Your task to perform on an android device: toggle location history Image 0: 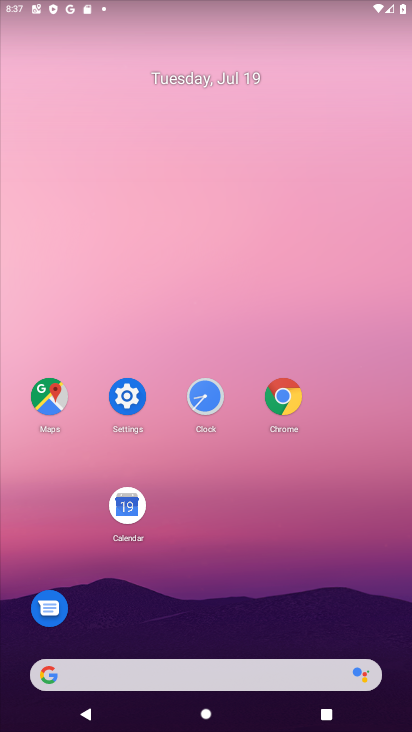
Step 0: click (132, 398)
Your task to perform on an android device: toggle location history Image 1: 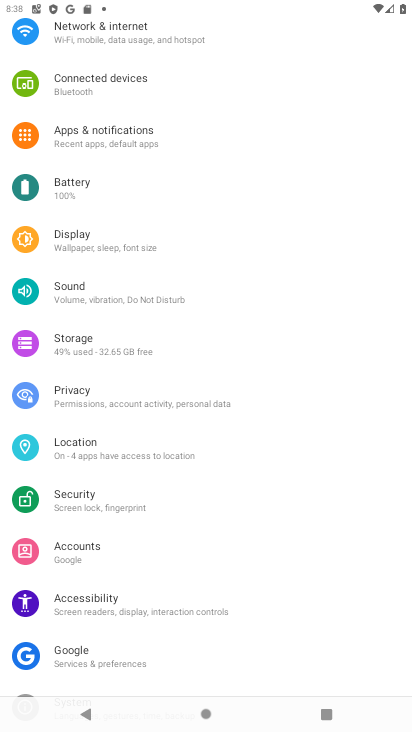
Step 1: click (85, 438)
Your task to perform on an android device: toggle location history Image 2: 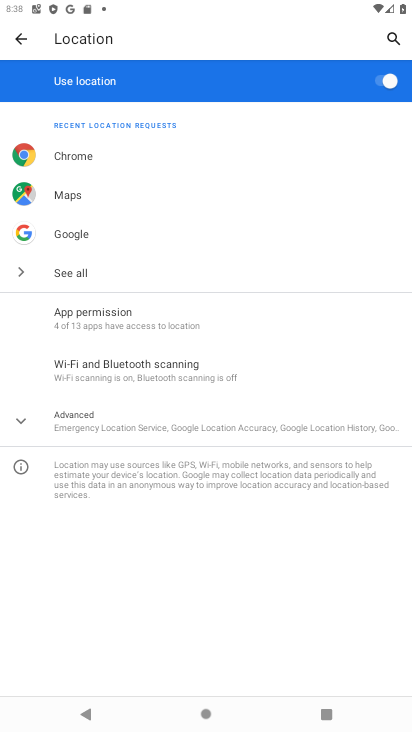
Step 2: click (19, 424)
Your task to perform on an android device: toggle location history Image 3: 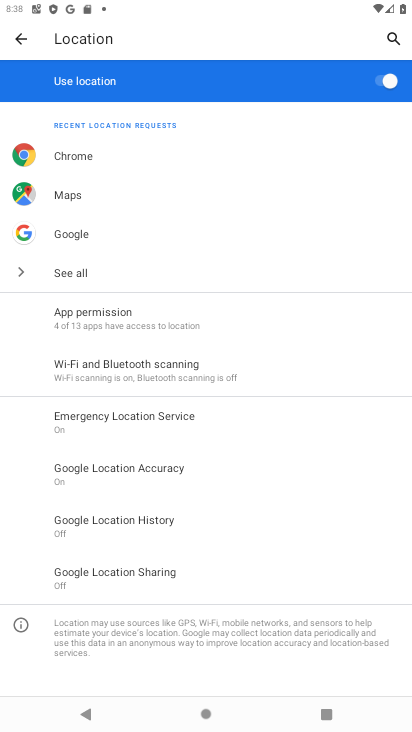
Step 3: click (121, 528)
Your task to perform on an android device: toggle location history Image 4: 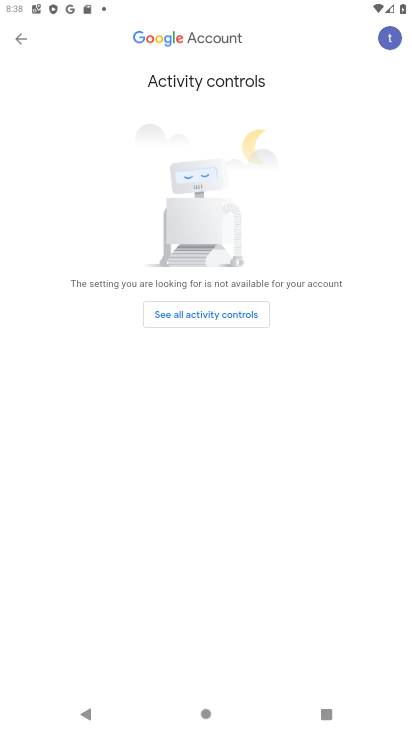
Step 4: click (213, 311)
Your task to perform on an android device: toggle location history Image 5: 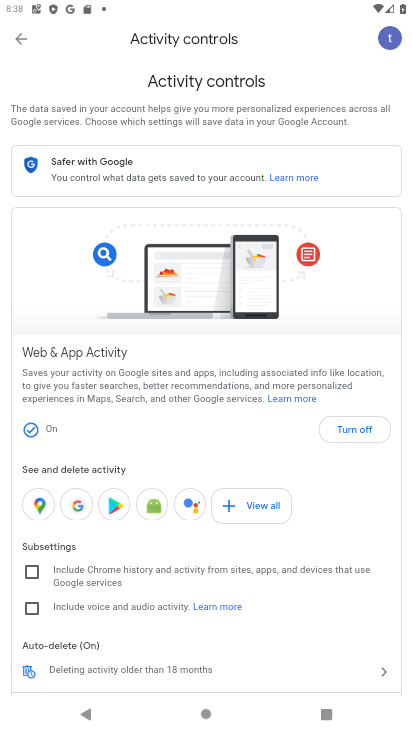
Step 5: drag from (235, 620) to (242, 268)
Your task to perform on an android device: toggle location history Image 6: 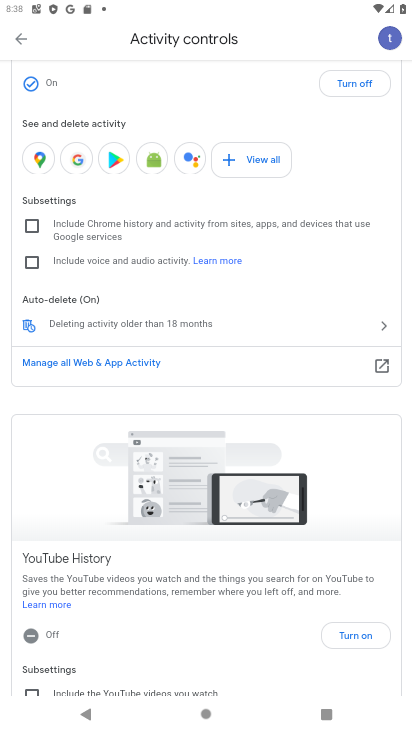
Step 6: click (357, 628)
Your task to perform on an android device: toggle location history Image 7: 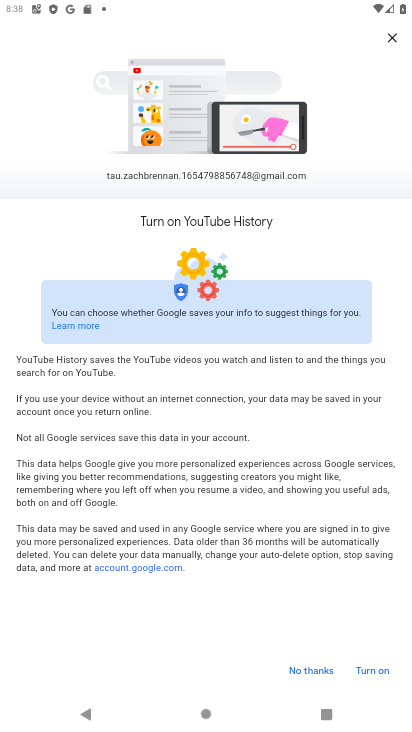
Step 7: click (355, 665)
Your task to perform on an android device: toggle location history Image 8: 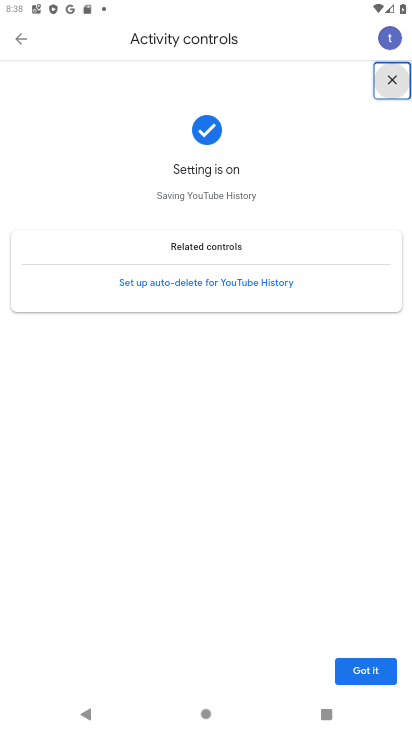
Step 8: click (362, 668)
Your task to perform on an android device: toggle location history Image 9: 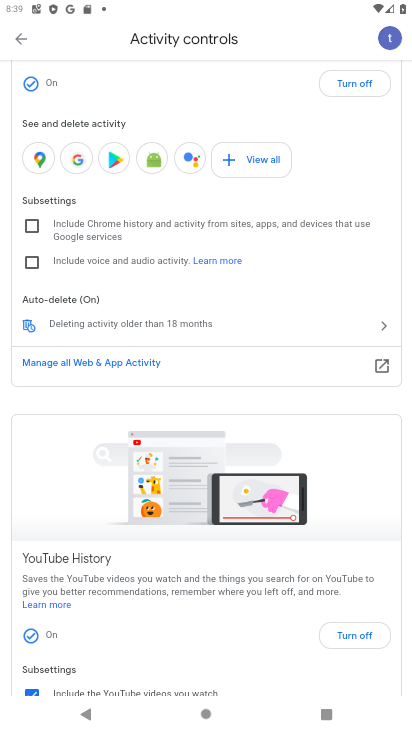
Step 9: task complete